Your task to perform on an android device: Open Reddit.com Image 0: 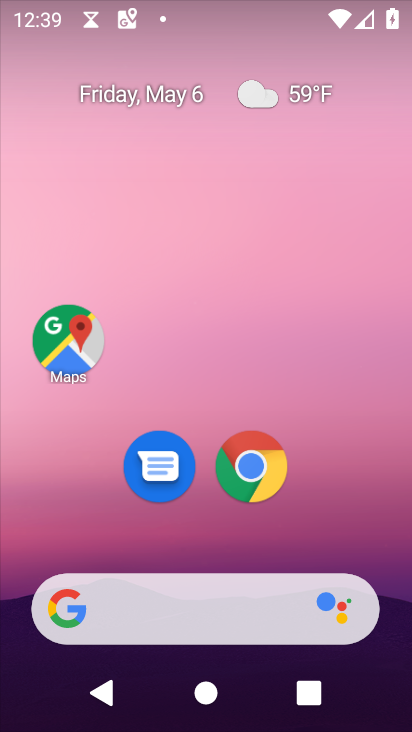
Step 0: click (260, 471)
Your task to perform on an android device: Open Reddit.com Image 1: 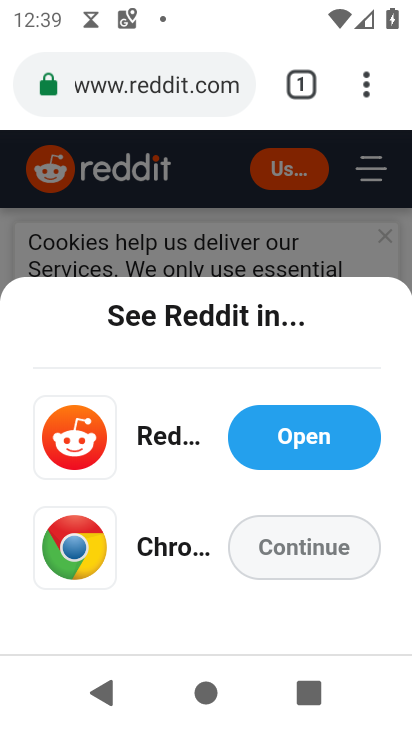
Step 1: click (305, 539)
Your task to perform on an android device: Open Reddit.com Image 2: 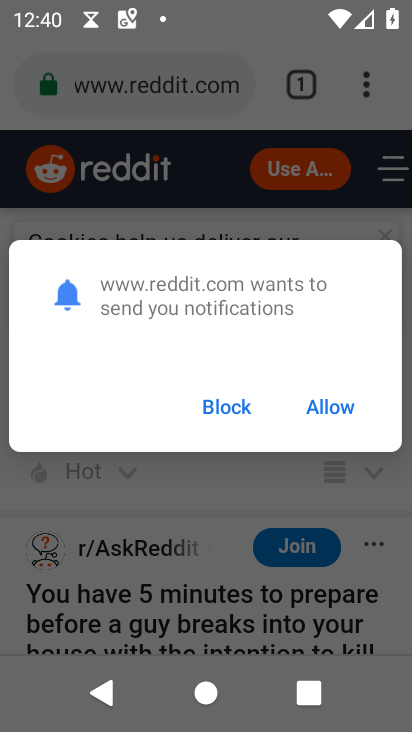
Step 2: click (213, 428)
Your task to perform on an android device: Open Reddit.com Image 3: 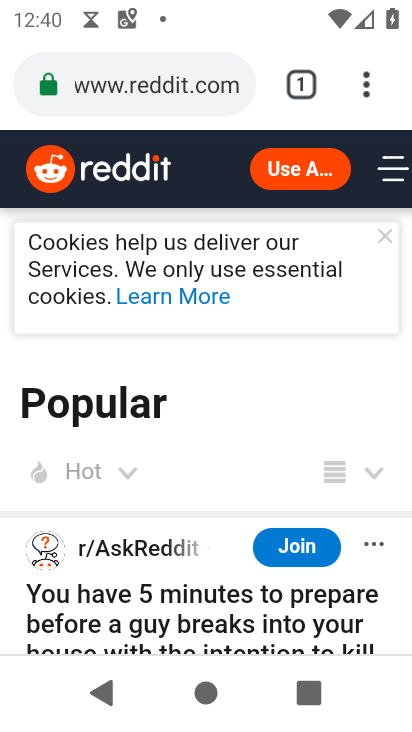
Step 3: task complete